Your task to perform on an android device: open the mobile data screen to see how much data has been used Image 0: 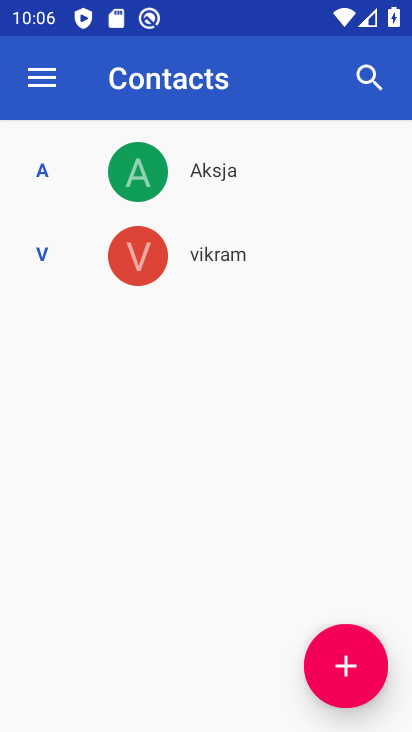
Step 0: press home button
Your task to perform on an android device: open the mobile data screen to see how much data has been used Image 1: 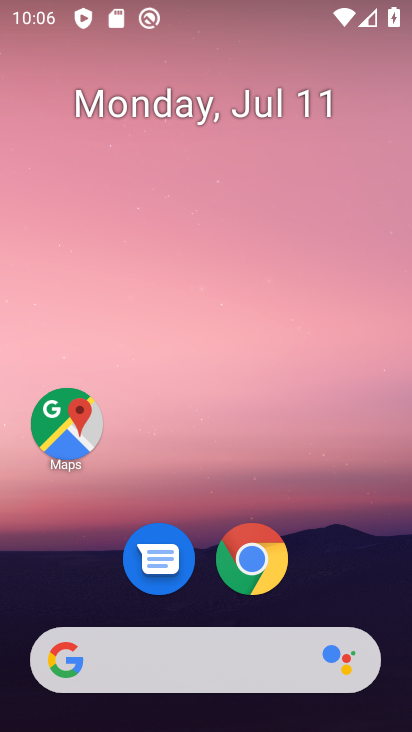
Step 1: drag from (360, 572) to (353, 182)
Your task to perform on an android device: open the mobile data screen to see how much data has been used Image 2: 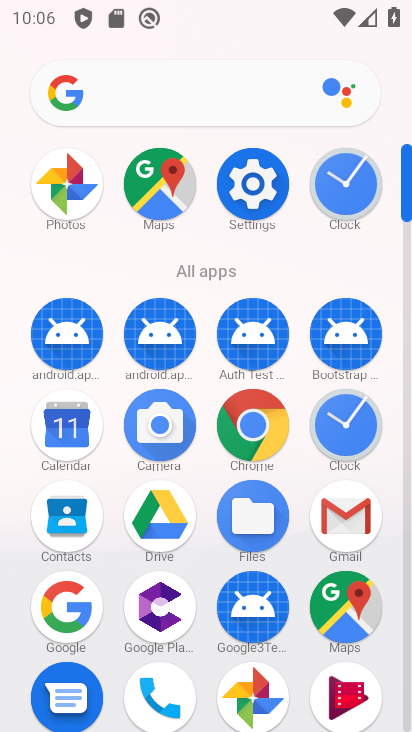
Step 2: click (262, 197)
Your task to perform on an android device: open the mobile data screen to see how much data has been used Image 3: 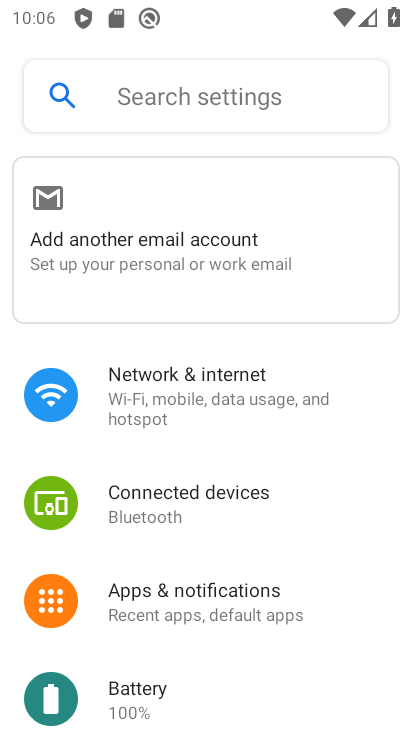
Step 3: drag from (344, 521) to (342, 410)
Your task to perform on an android device: open the mobile data screen to see how much data has been used Image 4: 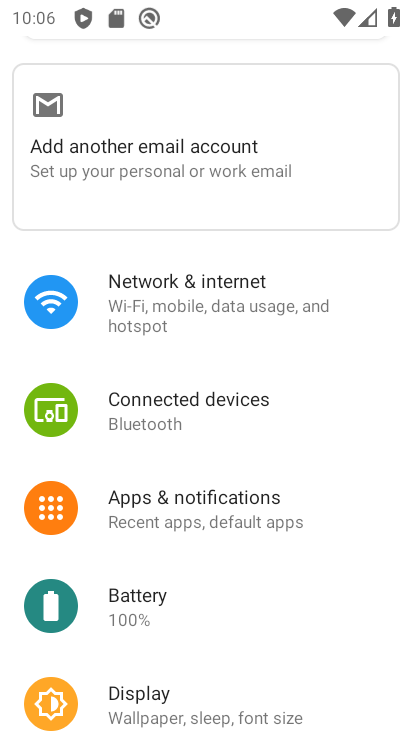
Step 4: drag from (352, 522) to (347, 370)
Your task to perform on an android device: open the mobile data screen to see how much data has been used Image 5: 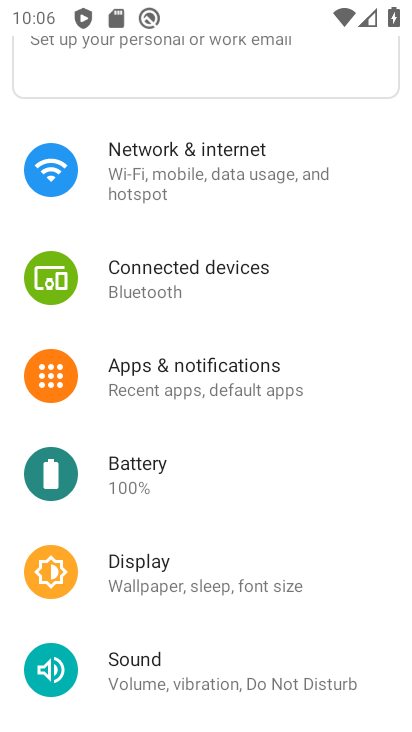
Step 5: drag from (347, 514) to (337, 377)
Your task to perform on an android device: open the mobile data screen to see how much data has been used Image 6: 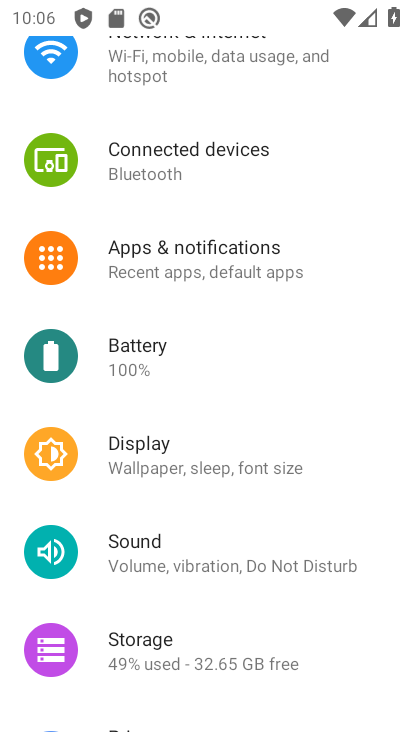
Step 6: drag from (356, 614) to (354, 415)
Your task to perform on an android device: open the mobile data screen to see how much data has been used Image 7: 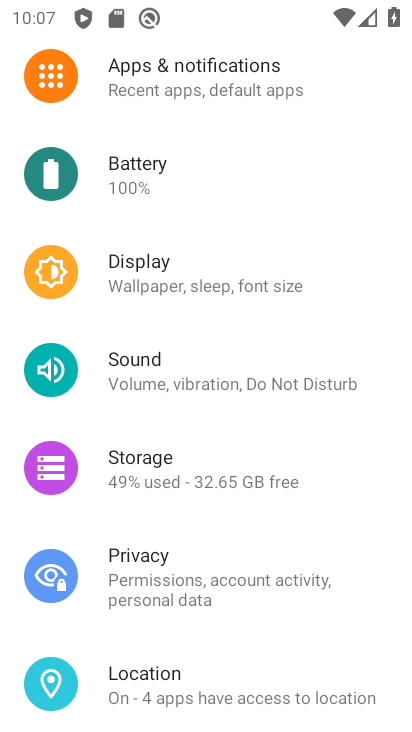
Step 7: drag from (365, 283) to (373, 499)
Your task to perform on an android device: open the mobile data screen to see how much data has been used Image 8: 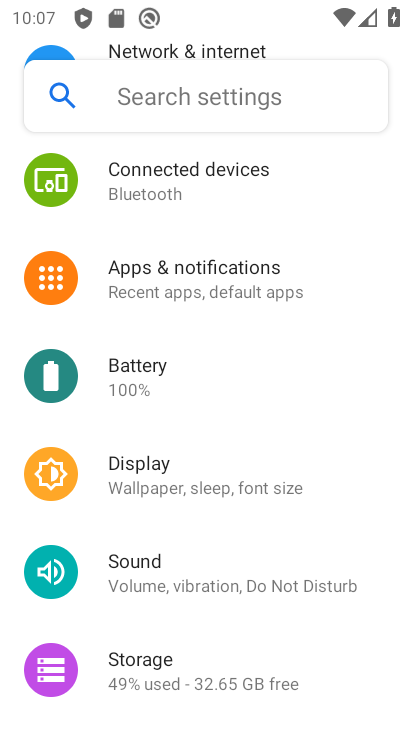
Step 8: drag from (335, 268) to (358, 485)
Your task to perform on an android device: open the mobile data screen to see how much data has been used Image 9: 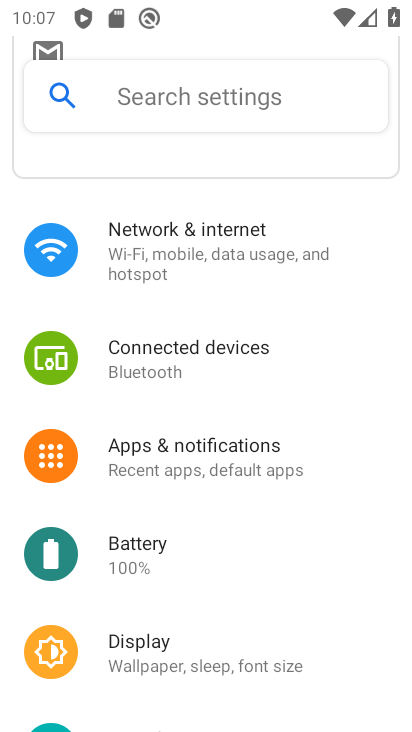
Step 9: click (256, 226)
Your task to perform on an android device: open the mobile data screen to see how much data has been used Image 10: 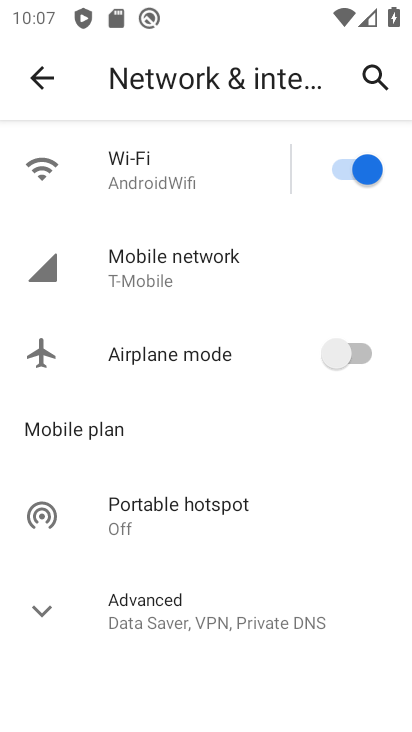
Step 10: click (236, 253)
Your task to perform on an android device: open the mobile data screen to see how much data has been used Image 11: 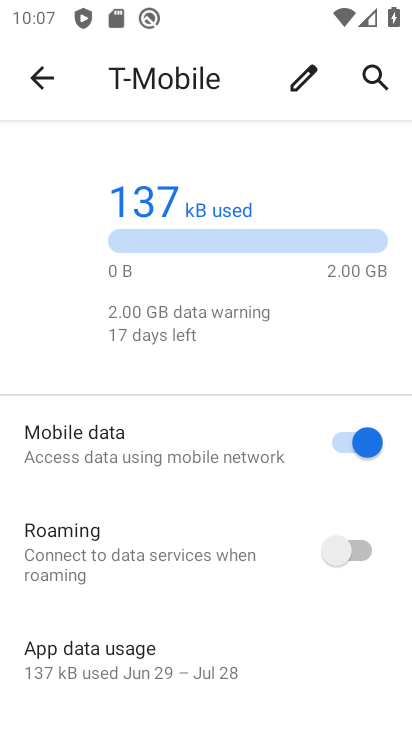
Step 11: drag from (215, 625) to (221, 462)
Your task to perform on an android device: open the mobile data screen to see how much data has been used Image 12: 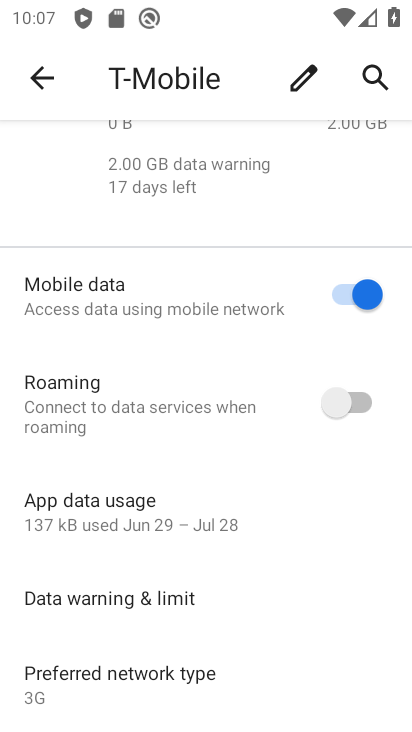
Step 12: click (170, 521)
Your task to perform on an android device: open the mobile data screen to see how much data has been used Image 13: 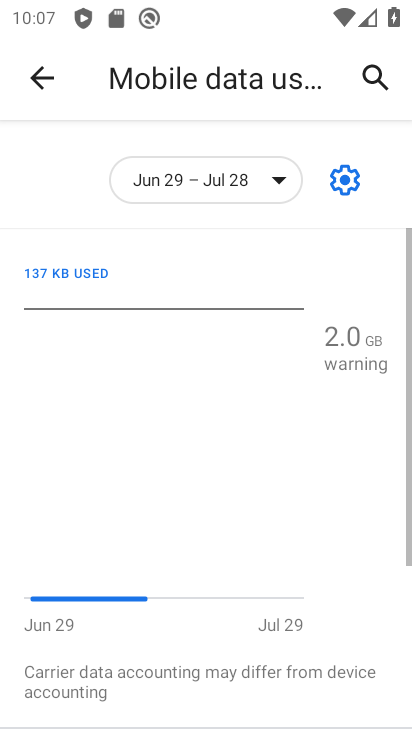
Step 13: task complete